Your task to perform on an android device: check data usage Image 0: 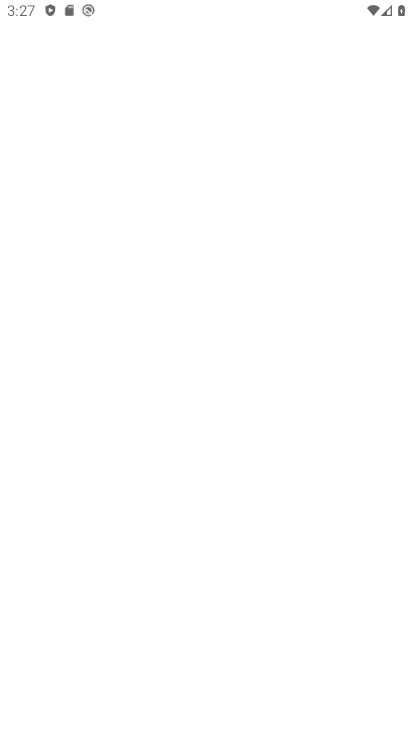
Step 0: press home button
Your task to perform on an android device: check data usage Image 1: 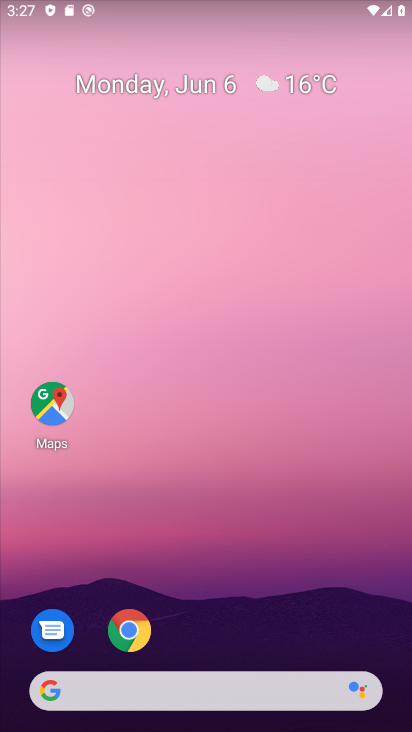
Step 1: drag from (277, 542) to (173, 53)
Your task to perform on an android device: check data usage Image 2: 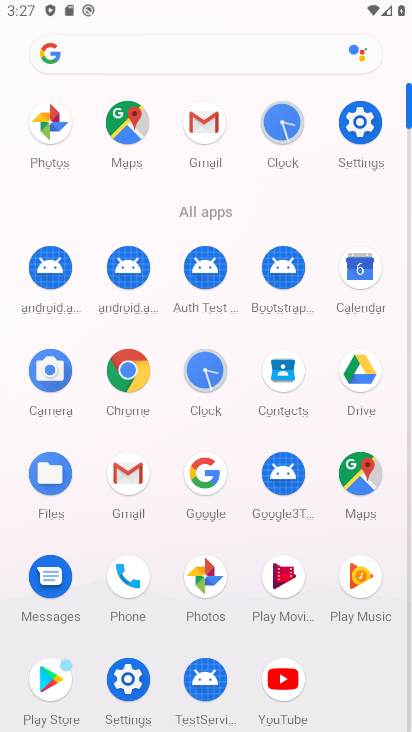
Step 2: click (362, 127)
Your task to perform on an android device: check data usage Image 3: 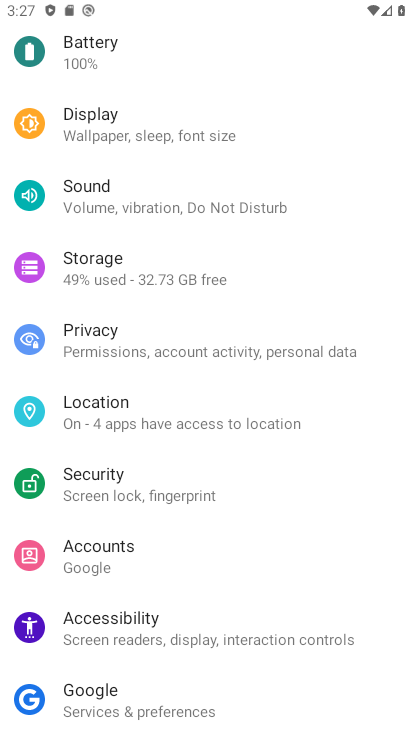
Step 3: drag from (231, 86) to (227, 684)
Your task to perform on an android device: check data usage Image 4: 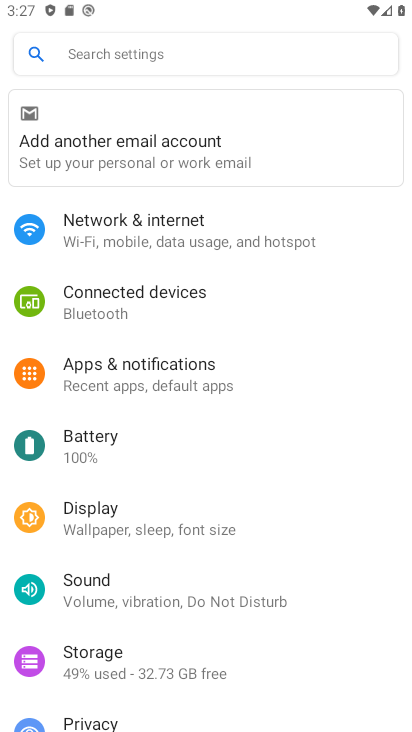
Step 4: click (148, 227)
Your task to perform on an android device: check data usage Image 5: 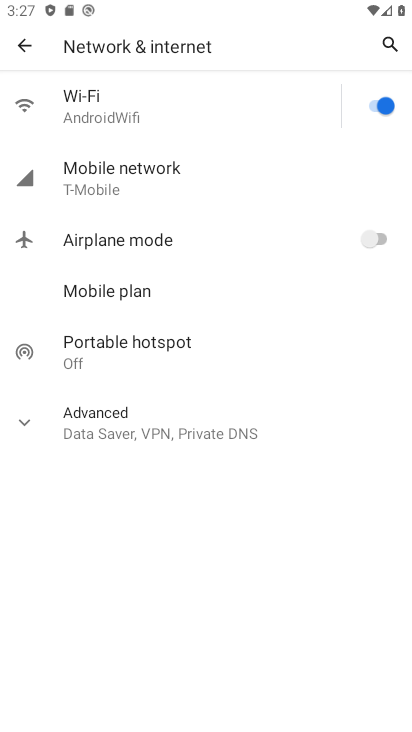
Step 5: click (132, 178)
Your task to perform on an android device: check data usage Image 6: 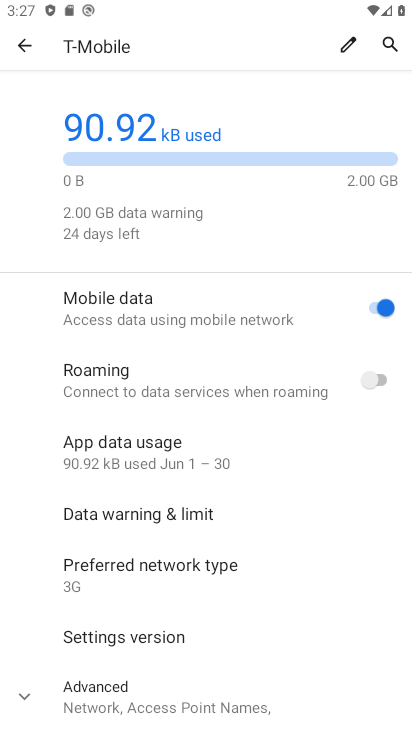
Step 6: task complete